Your task to perform on an android device: Open internet settings Image 0: 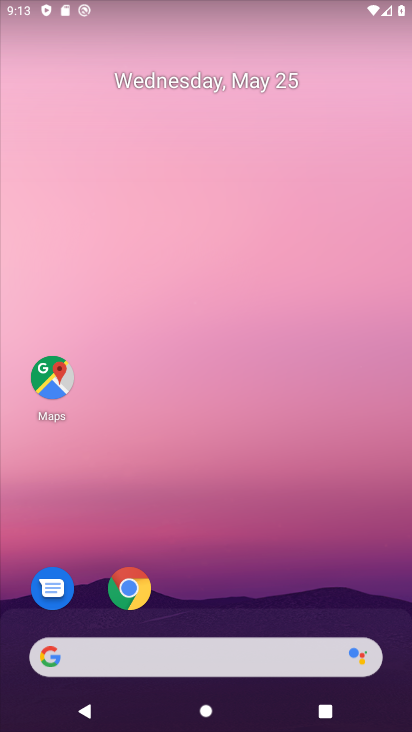
Step 0: drag from (265, 493) to (50, 375)
Your task to perform on an android device: Open internet settings Image 1: 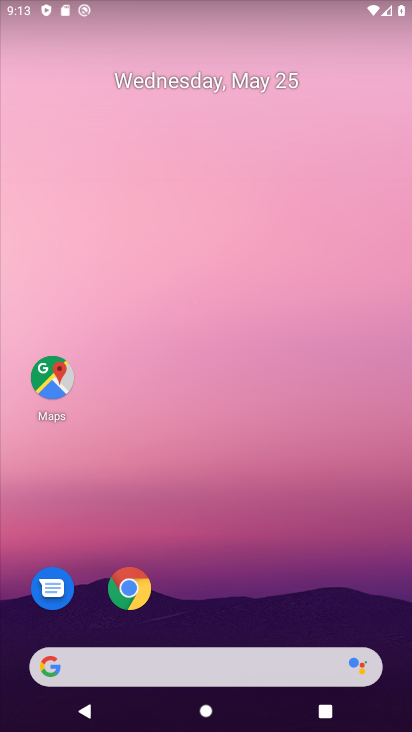
Step 1: drag from (325, 499) to (260, 1)
Your task to perform on an android device: Open internet settings Image 2: 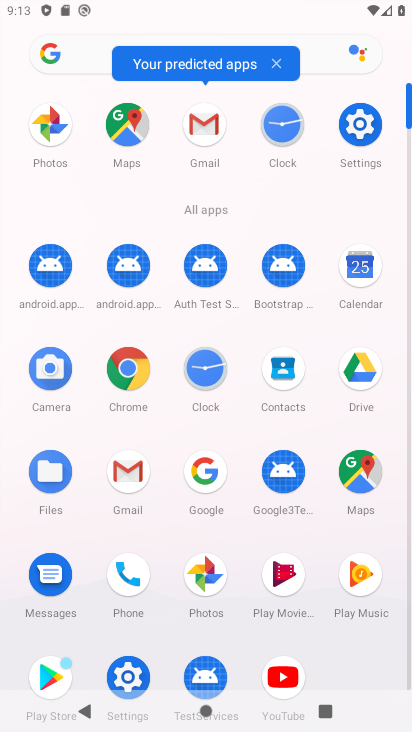
Step 2: click (358, 126)
Your task to perform on an android device: Open internet settings Image 3: 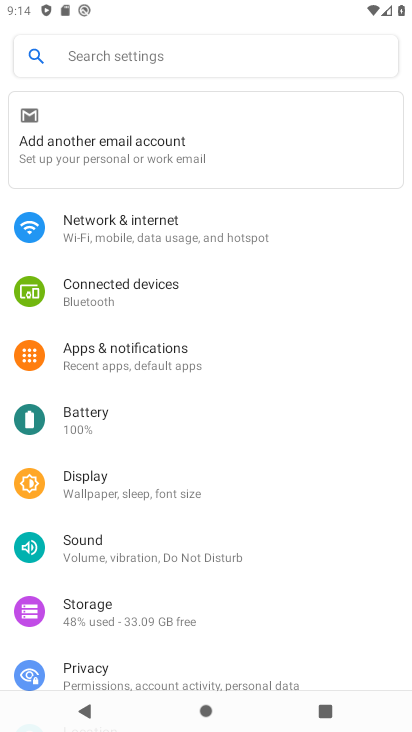
Step 3: click (195, 223)
Your task to perform on an android device: Open internet settings Image 4: 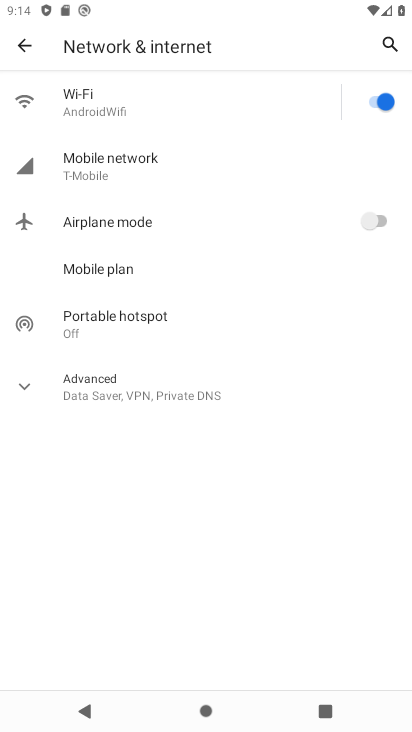
Step 4: click (106, 175)
Your task to perform on an android device: Open internet settings Image 5: 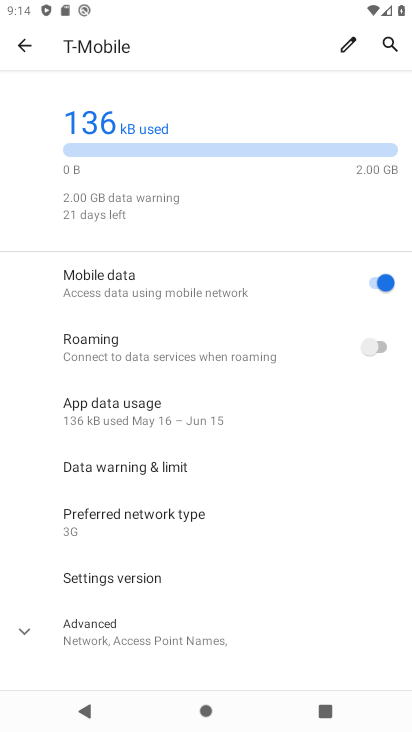
Step 5: task complete